Your task to perform on an android device: set the timer Image 0: 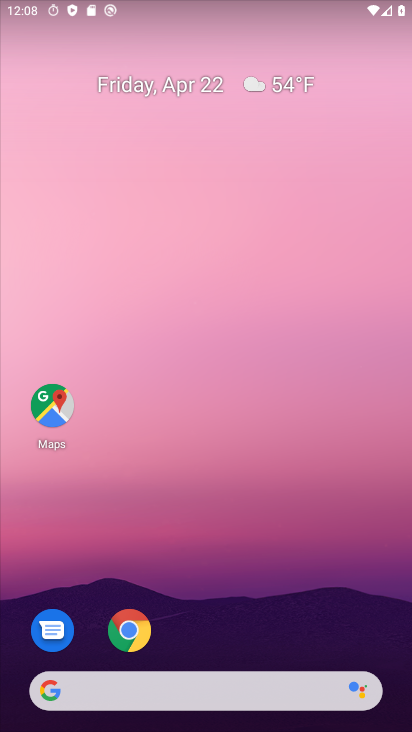
Step 0: click (124, 630)
Your task to perform on an android device: set the timer Image 1: 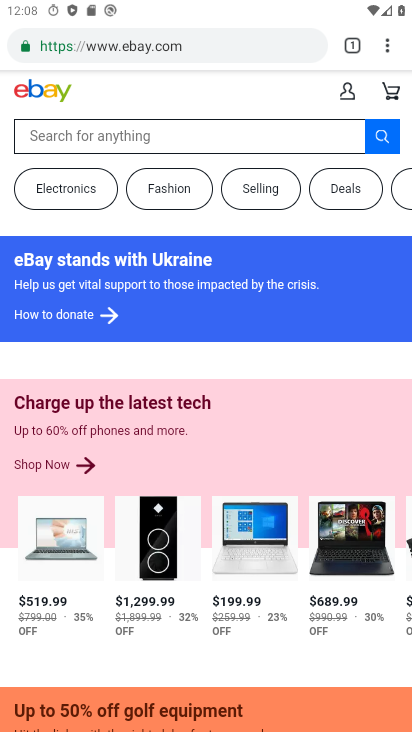
Step 1: press home button
Your task to perform on an android device: set the timer Image 2: 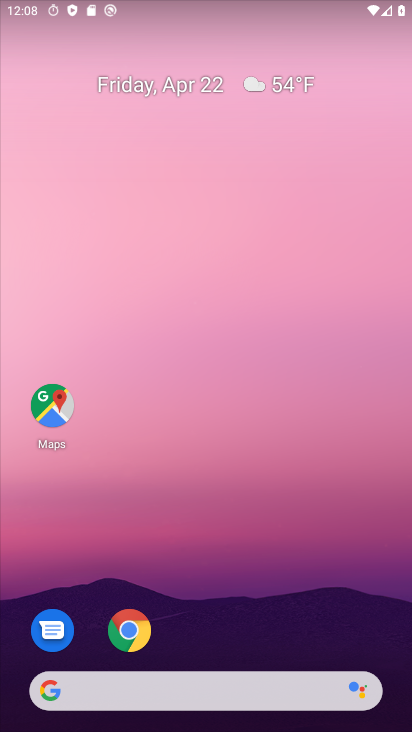
Step 2: drag from (231, 510) to (261, 198)
Your task to perform on an android device: set the timer Image 3: 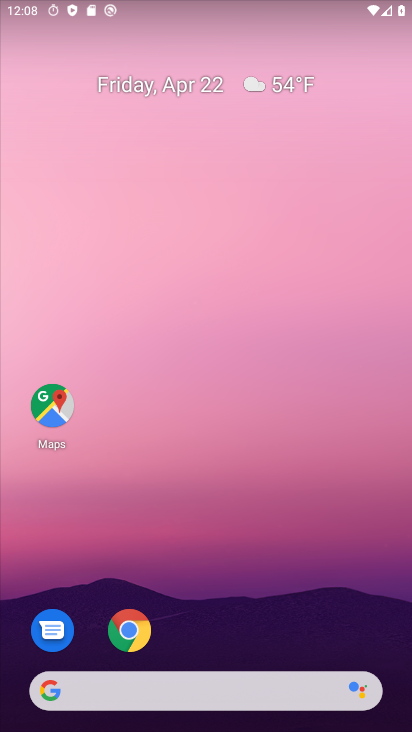
Step 3: drag from (237, 682) to (248, 27)
Your task to perform on an android device: set the timer Image 4: 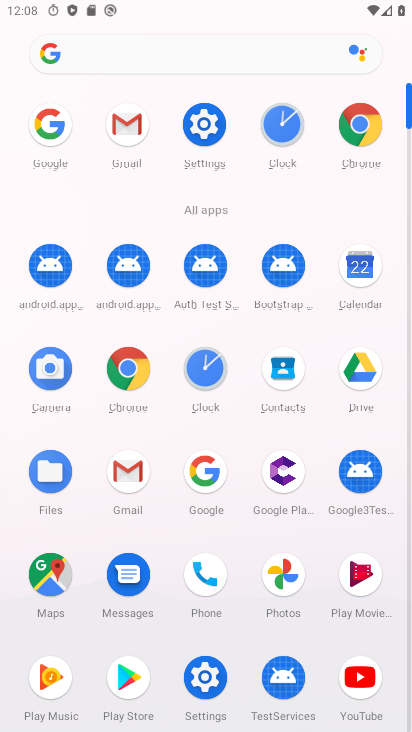
Step 4: click (198, 374)
Your task to perform on an android device: set the timer Image 5: 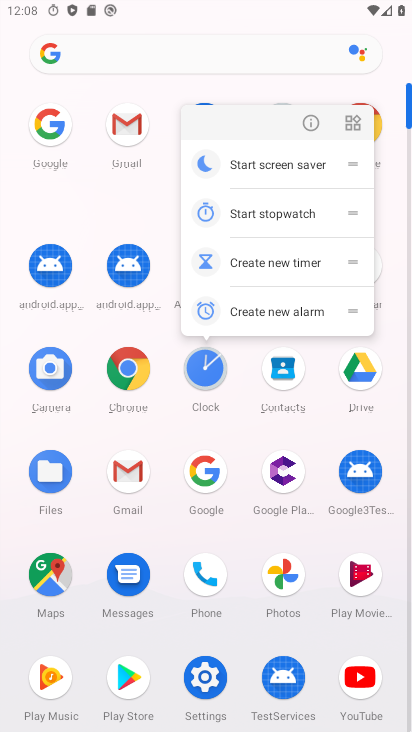
Step 5: click (198, 374)
Your task to perform on an android device: set the timer Image 6: 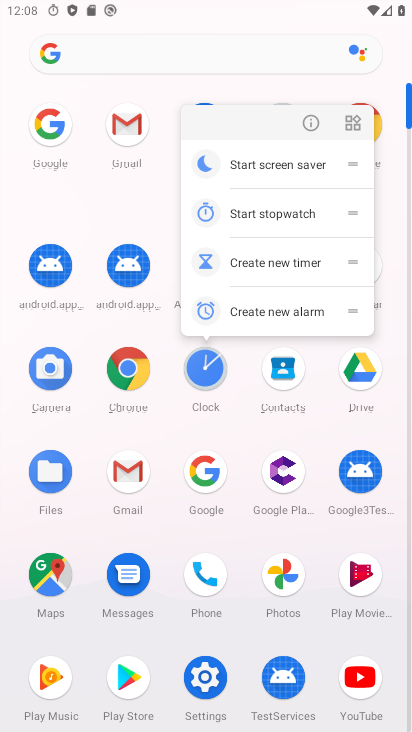
Step 6: click (198, 374)
Your task to perform on an android device: set the timer Image 7: 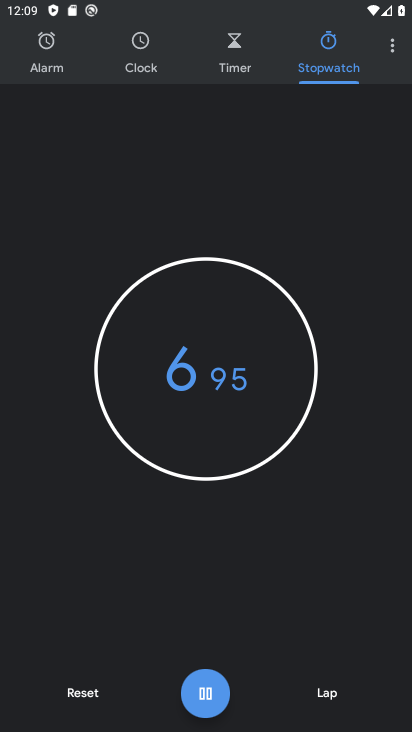
Step 7: click (241, 59)
Your task to perform on an android device: set the timer Image 8: 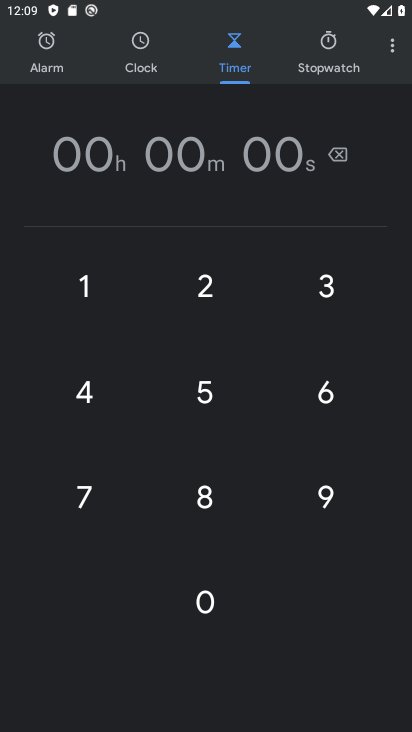
Step 8: click (208, 603)
Your task to perform on an android device: set the timer Image 9: 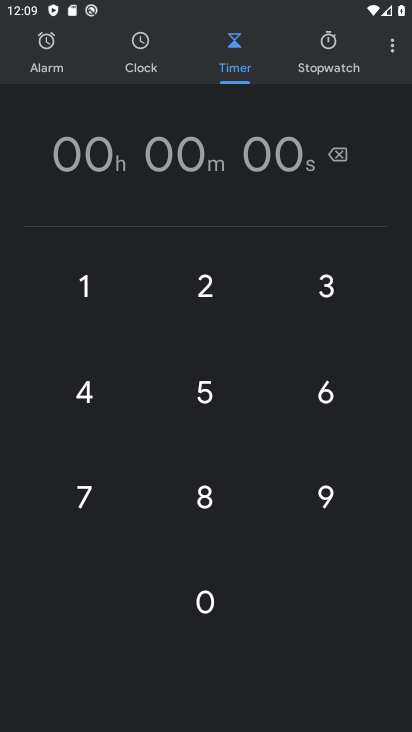
Step 9: click (85, 391)
Your task to perform on an android device: set the timer Image 10: 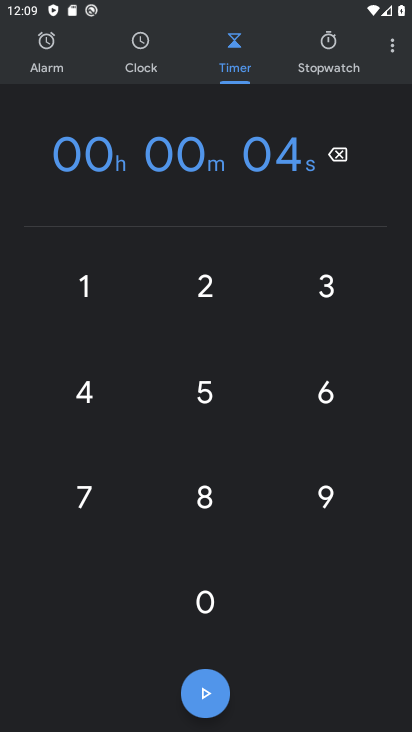
Step 10: click (217, 597)
Your task to perform on an android device: set the timer Image 11: 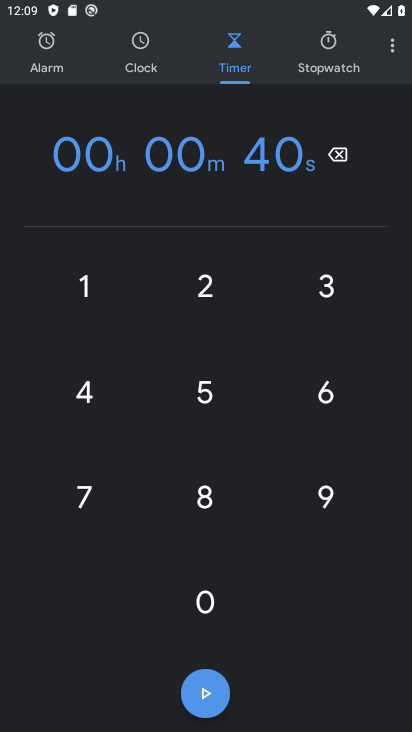
Step 11: click (211, 375)
Your task to perform on an android device: set the timer Image 12: 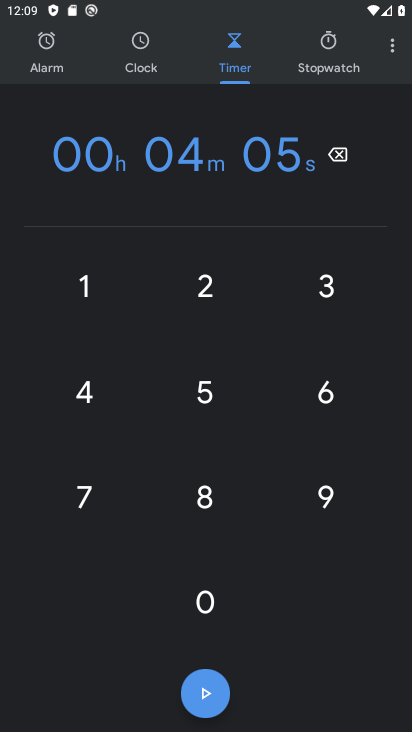
Step 12: click (204, 684)
Your task to perform on an android device: set the timer Image 13: 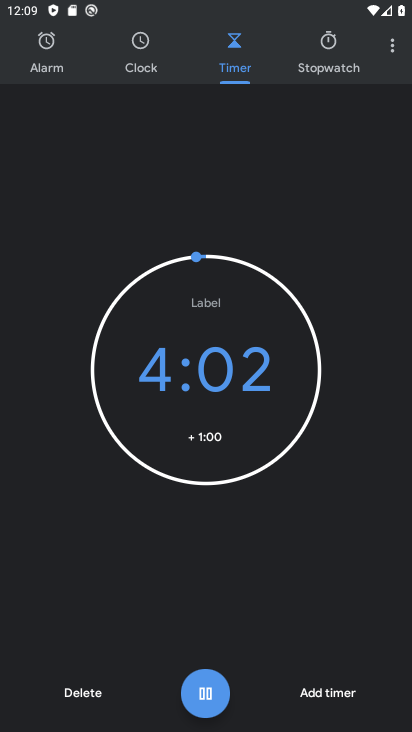
Step 13: task complete